Your task to perform on an android device: open a new tab in the chrome app Image 0: 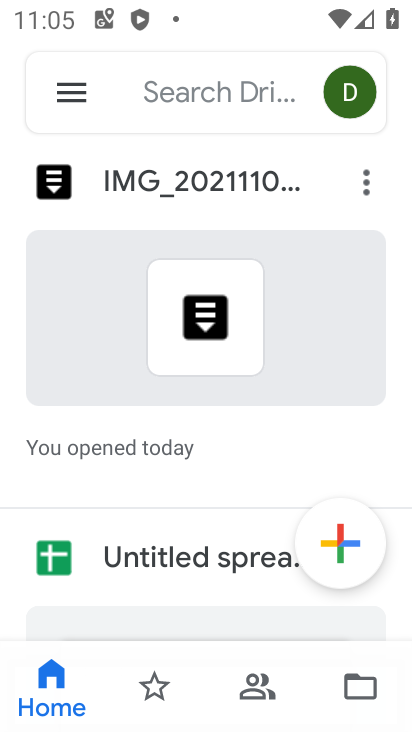
Step 0: press home button
Your task to perform on an android device: open a new tab in the chrome app Image 1: 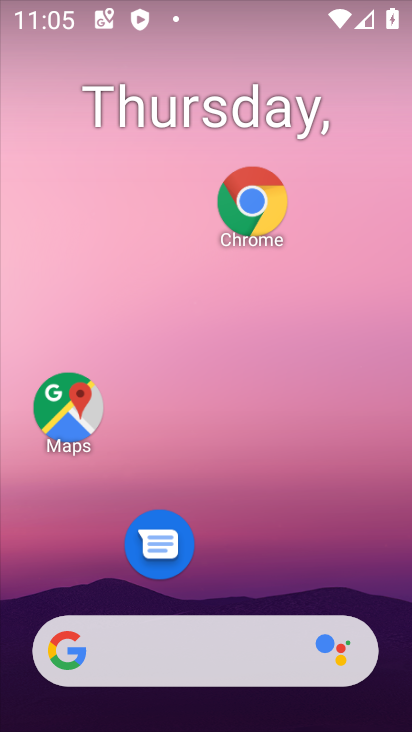
Step 1: click (254, 189)
Your task to perform on an android device: open a new tab in the chrome app Image 2: 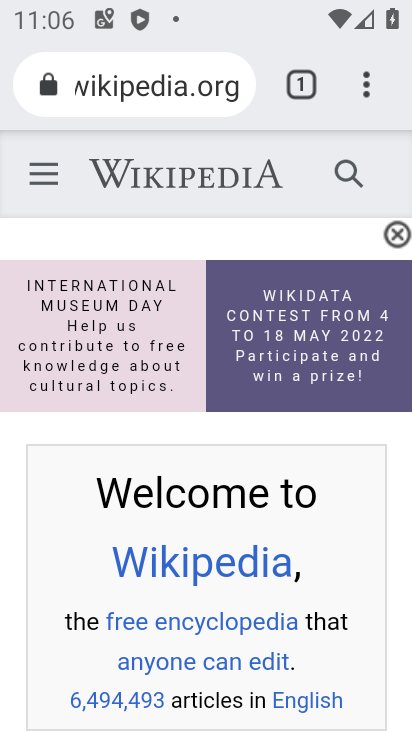
Step 2: click (308, 80)
Your task to perform on an android device: open a new tab in the chrome app Image 3: 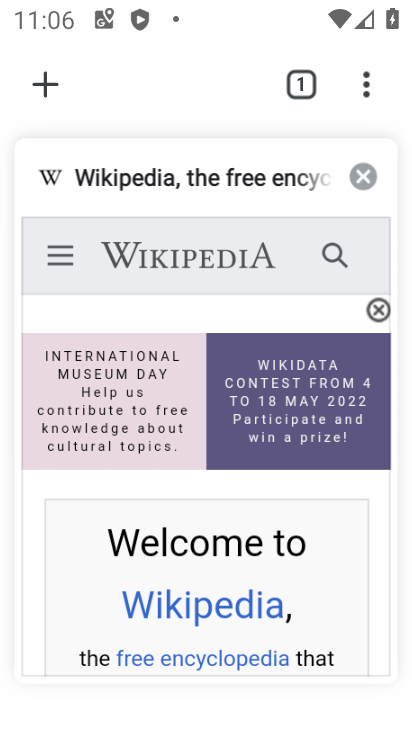
Step 3: click (47, 85)
Your task to perform on an android device: open a new tab in the chrome app Image 4: 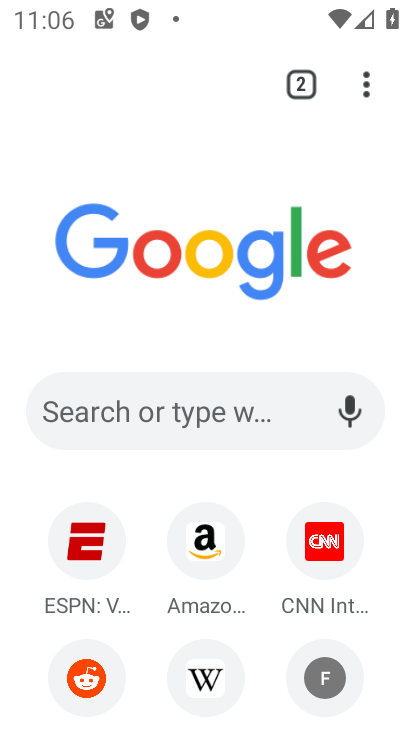
Step 4: task complete